Your task to perform on an android device: Open Yahoo.com Image 0: 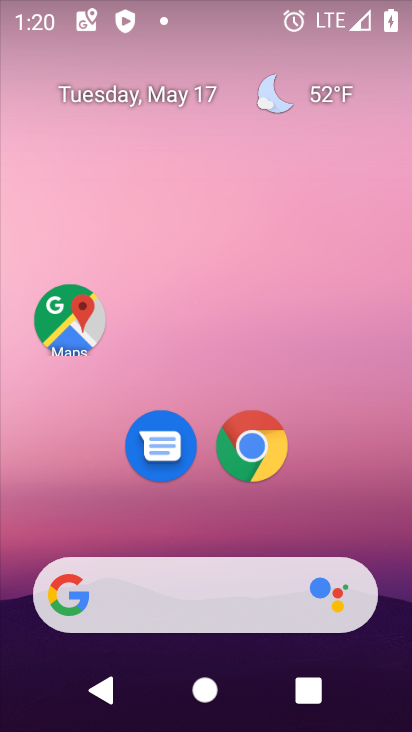
Step 0: click (248, 443)
Your task to perform on an android device: Open Yahoo.com Image 1: 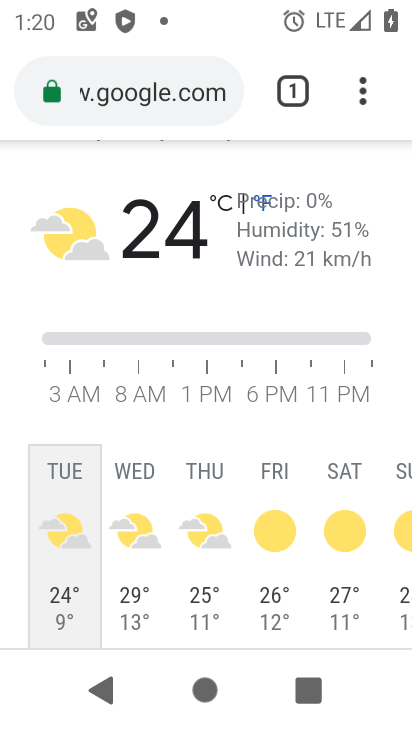
Step 1: click (140, 111)
Your task to perform on an android device: Open Yahoo.com Image 2: 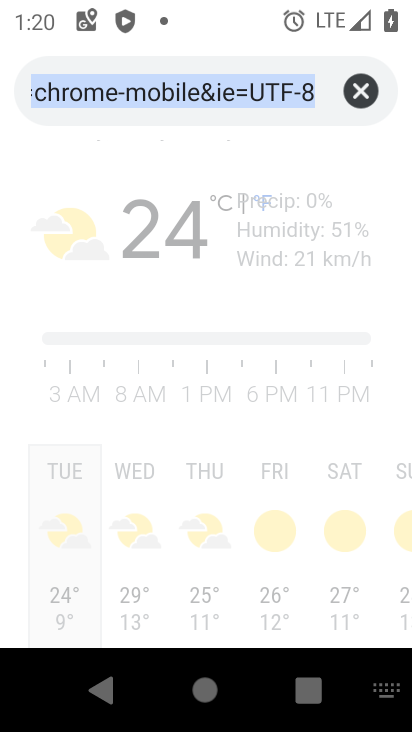
Step 2: type "Open Yahoo.com"
Your task to perform on an android device: Open Yahoo.com Image 3: 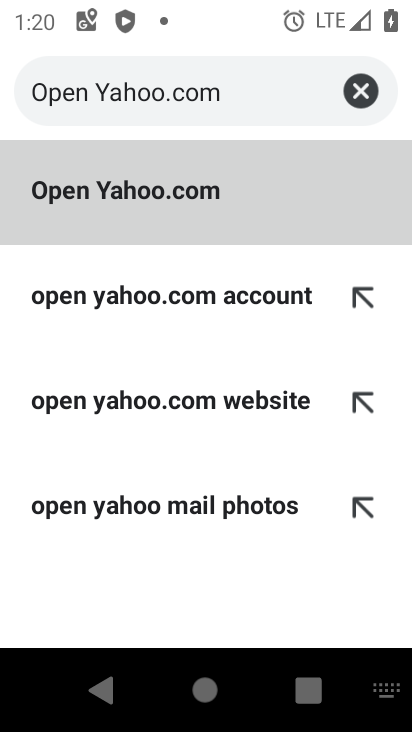
Step 3: click (199, 210)
Your task to perform on an android device: Open Yahoo.com Image 4: 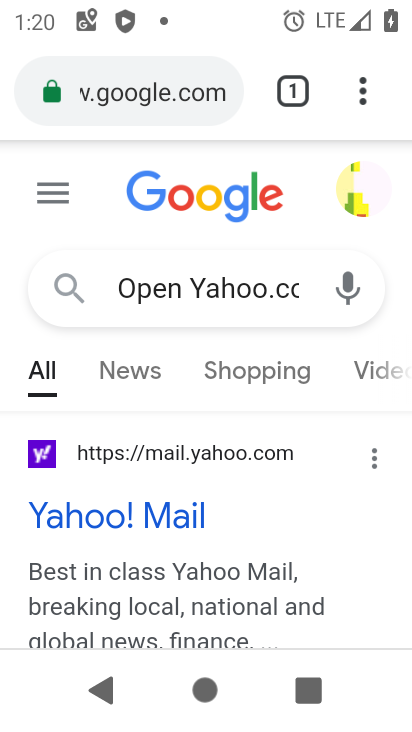
Step 4: task complete